Your task to perform on an android device: change notifications settings Image 0: 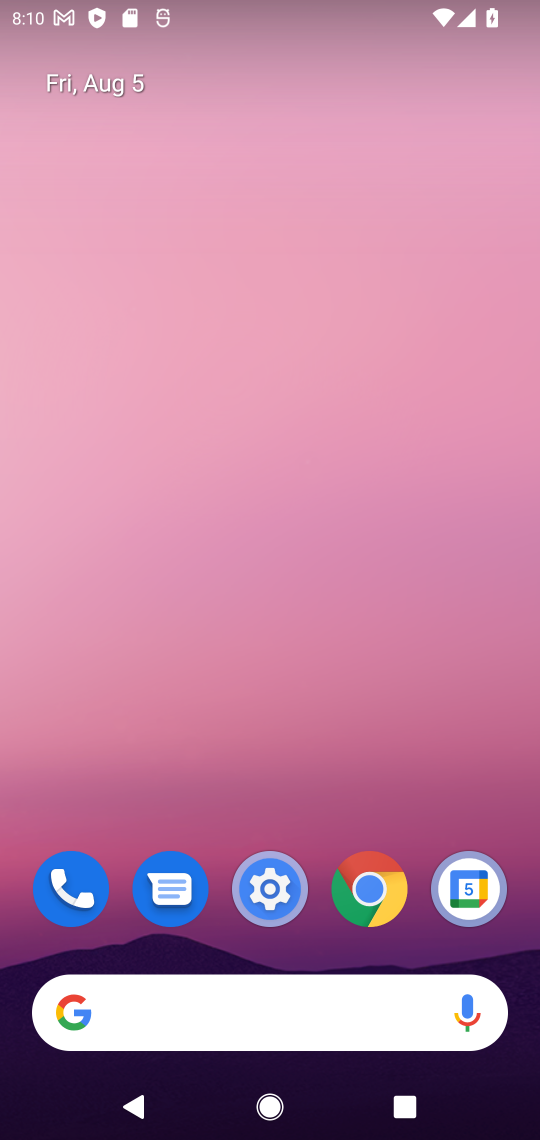
Step 0: drag from (239, 941) to (221, 280)
Your task to perform on an android device: change notifications settings Image 1: 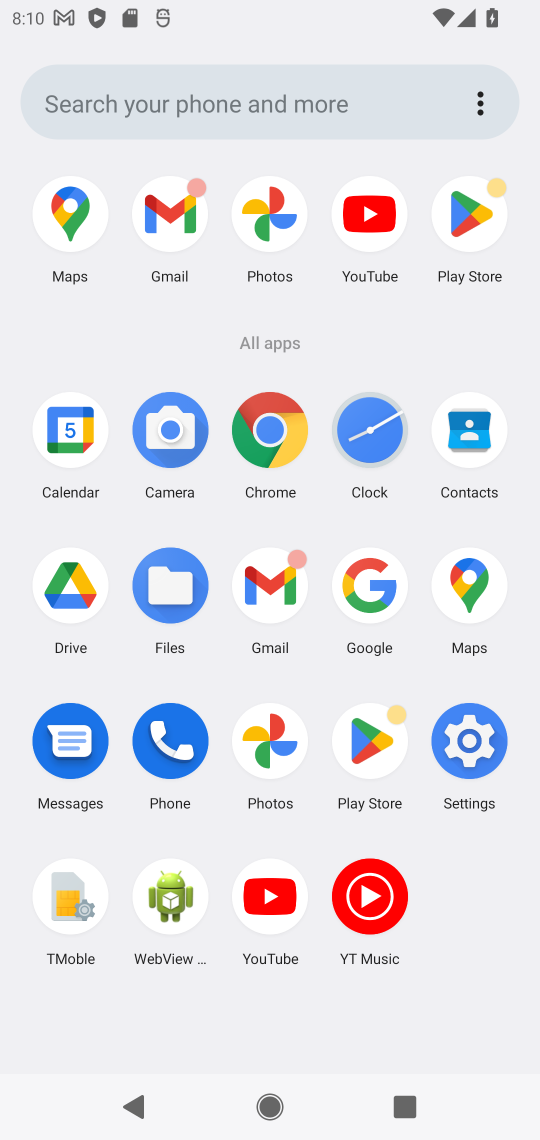
Step 1: click (469, 719)
Your task to perform on an android device: change notifications settings Image 2: 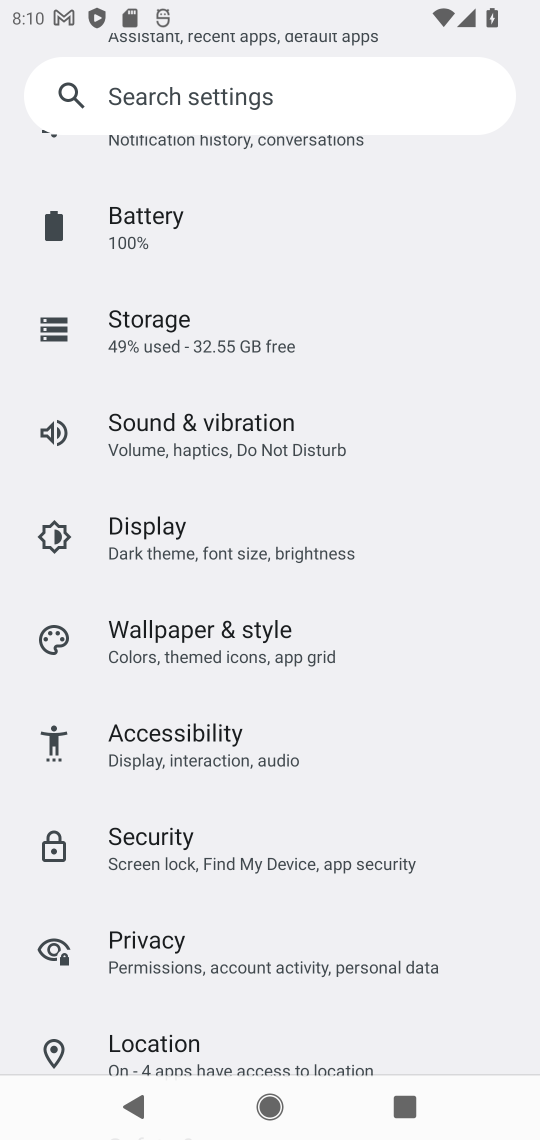
Step 2: drag from (266, 254) to (246, 913)
Your task to perform on an android device: change notifications settings Image 3: 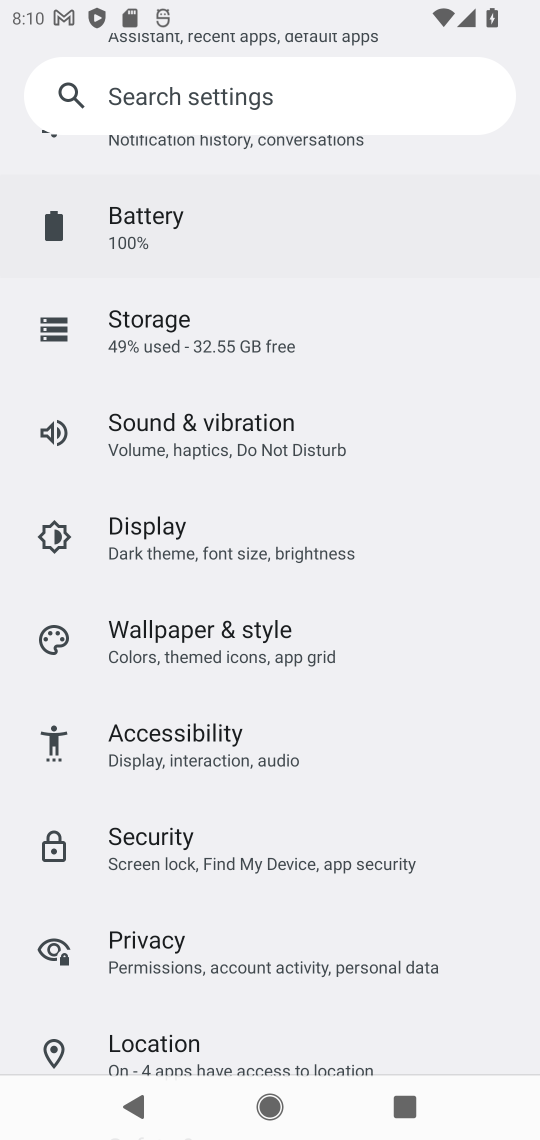
Step 3: drag from (202, 218) to (187, 823)
Your task to perform on an android device: change notifications settings Image 4: 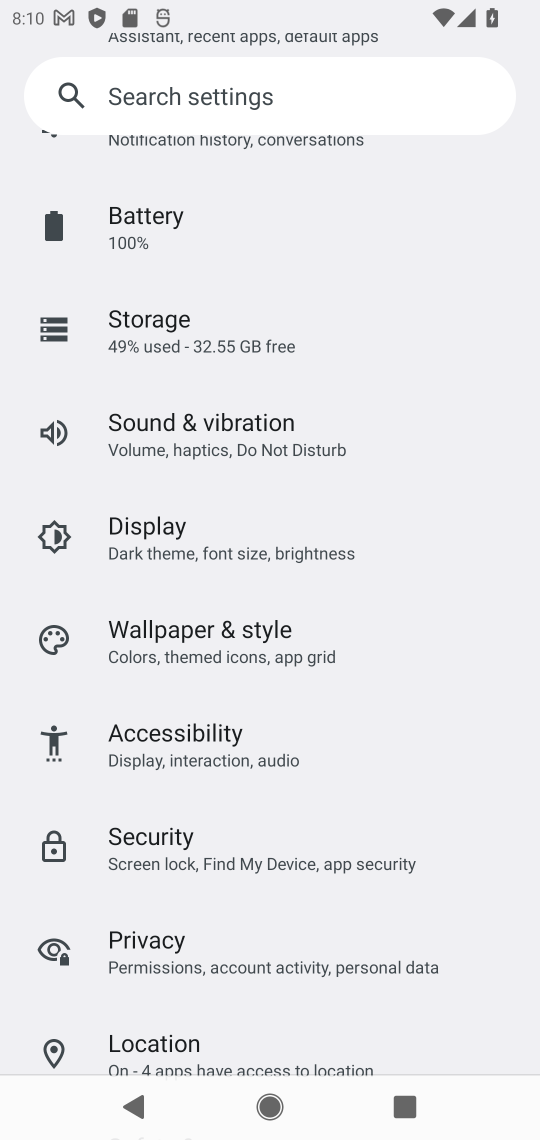
Step 4: drag from (358, 322) to (353, 855)
Your task to perform on an android device: change notifications settings Image 5: 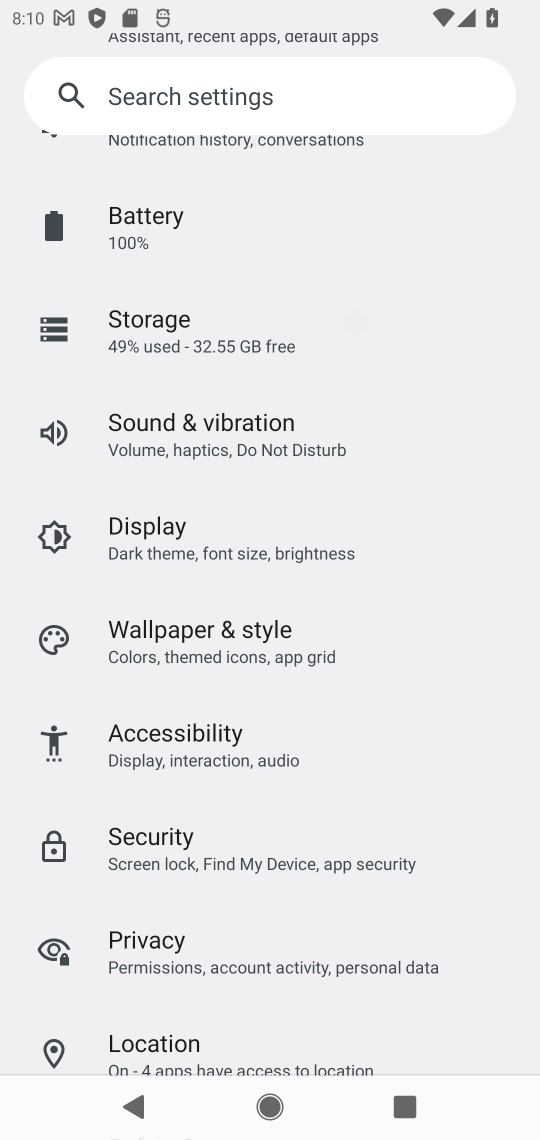
Step 5: drag from (265, 394) to (209, 798)
Your task to perform on an android device: change notifications settings Image 6: 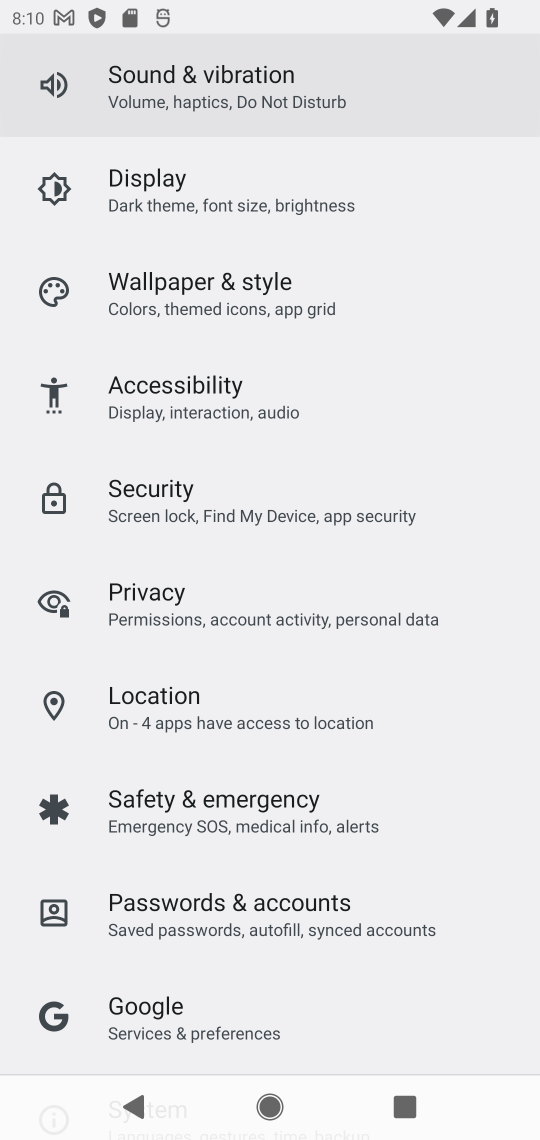
Step 6: drag from (157, 305) to (164, 773)
Your task to perform on an android device: change notifications settings Image 7: 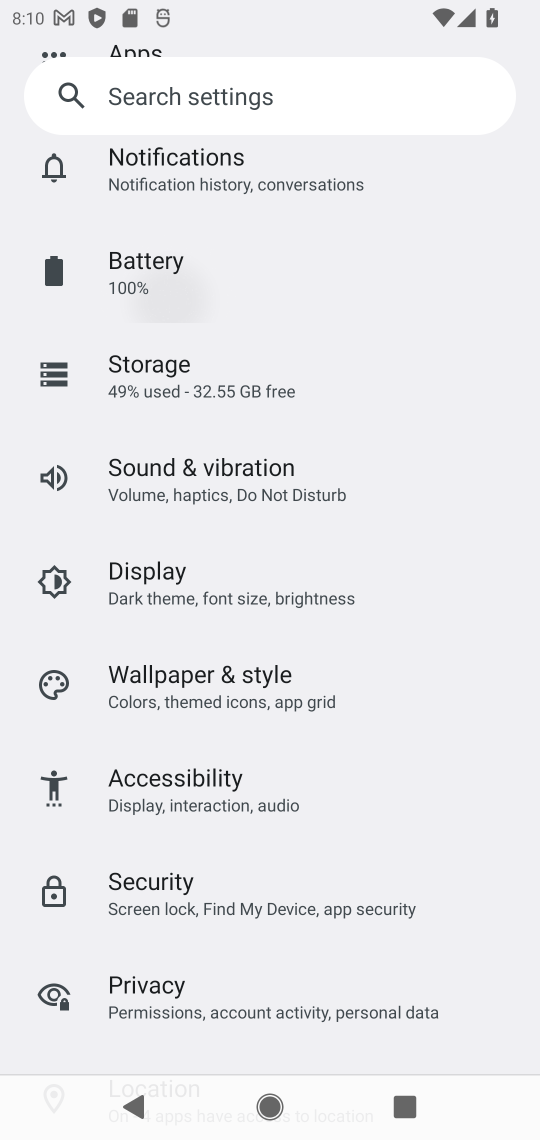
Step 7: drag from (125, 375) to (182, 835)
Your task to perform on an android device: change notifications settings Image 8: 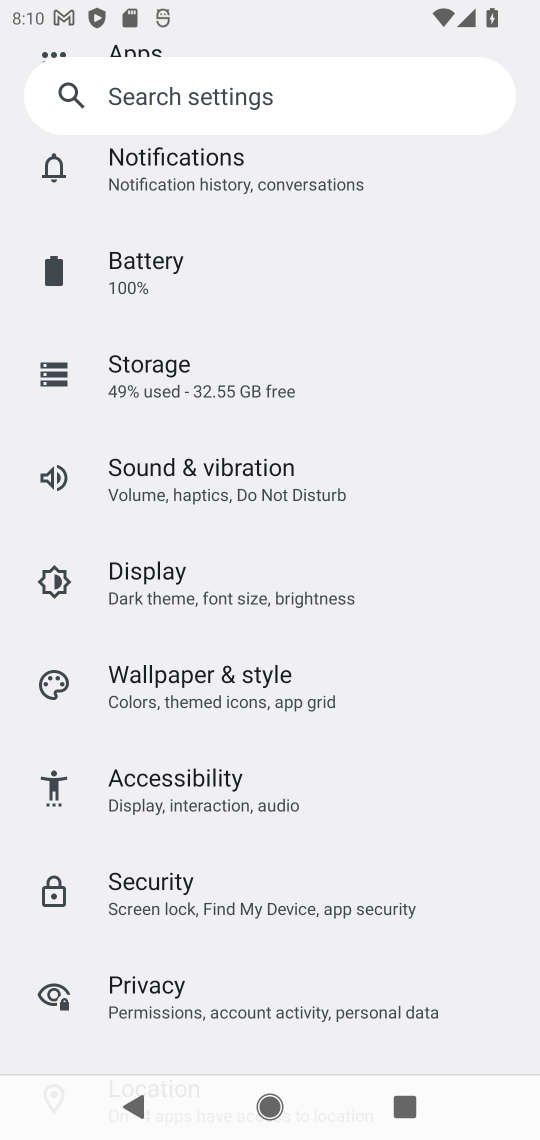
Step 8: click (214, 175)
Your task to perform on an android device: change notifications settings Image 9: 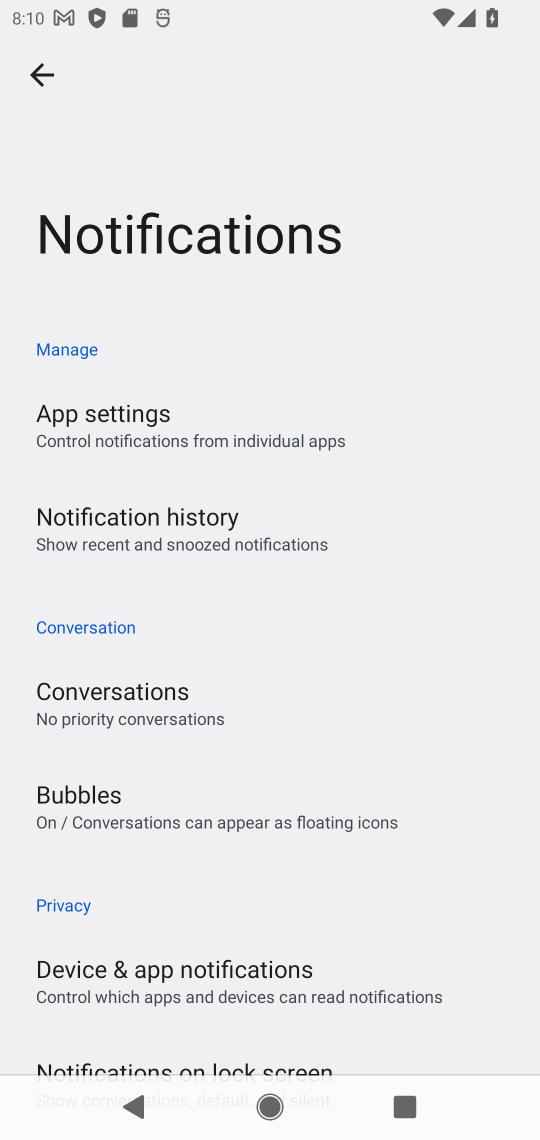
Step 9: drag from (160, 976) to (215, 335)
Your task to perform on an android device: change notifications settings Image 10: 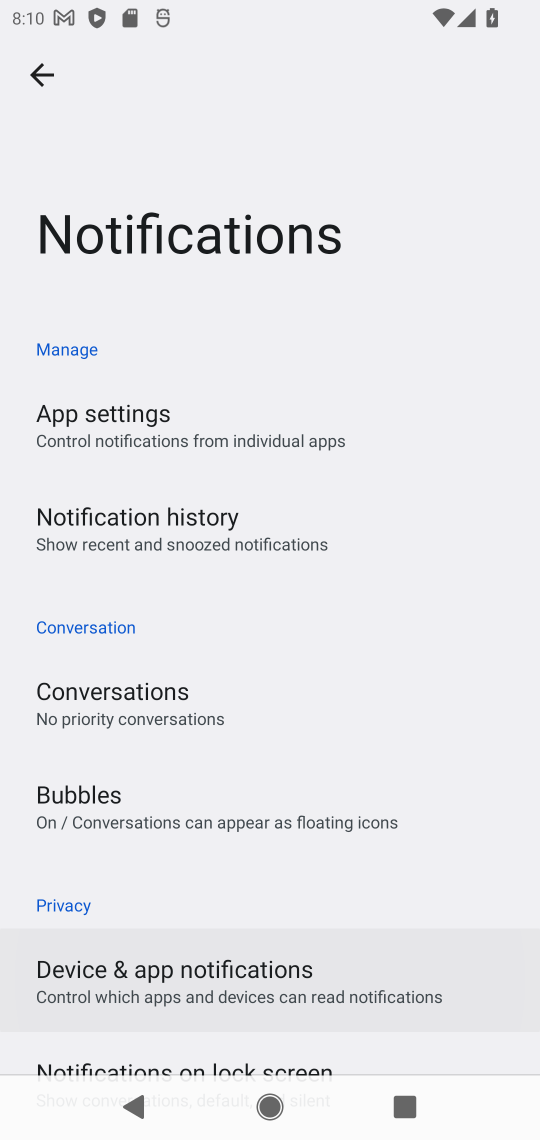
Step 10: drag from (191, 901) to (188, 428)
Your task to perform on an android device: change notifications settings Image 11: 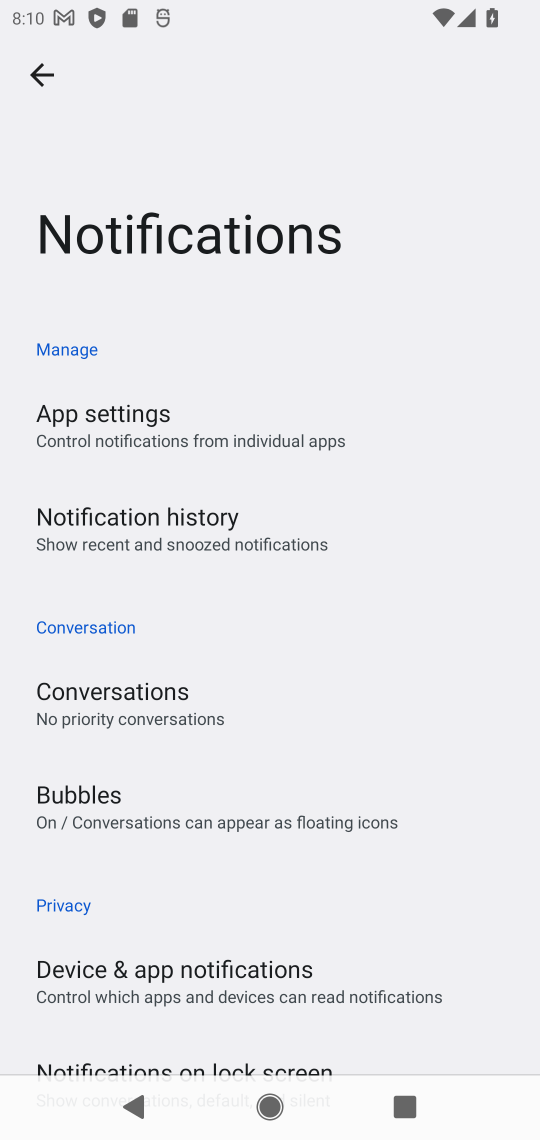
Step 11: drag from (190, 834) to (230, 525)
Your task to perform on an android device: change notifications settings Image 12: 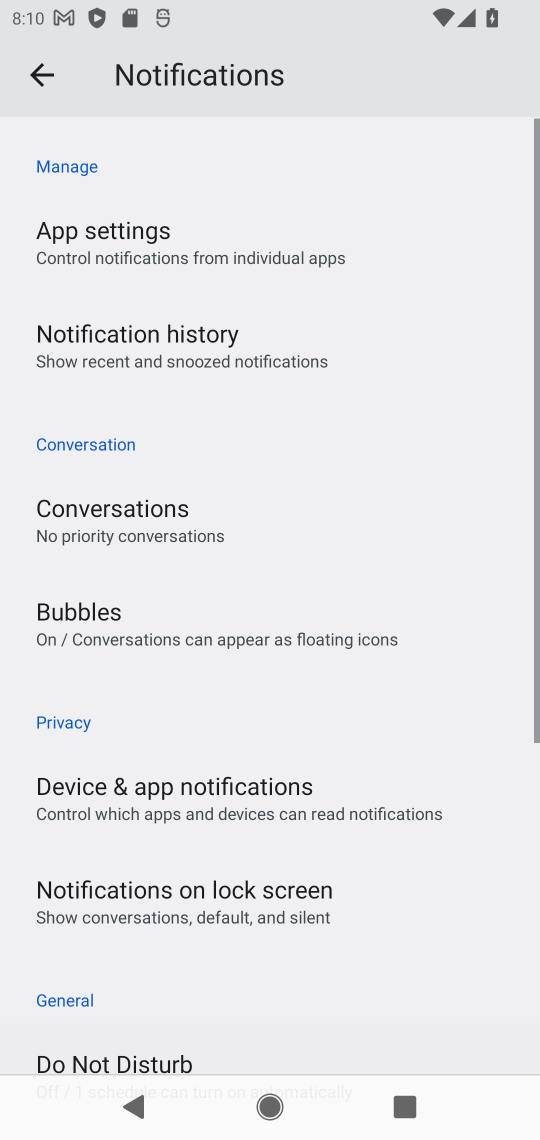
Step 12: drag from (213, 755) to (235, 444)
Your task to perform on an android device: change notifications settings Image 13: 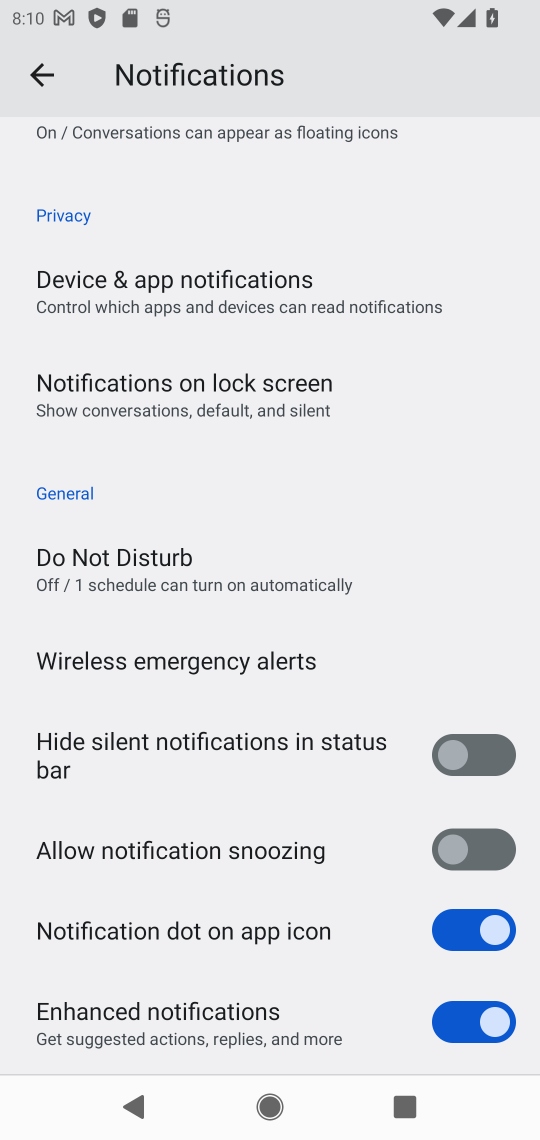
Step 13: drag from (103, 293) to (140, 682)
Your task to perform on an android device: change notifications settings Image 14: 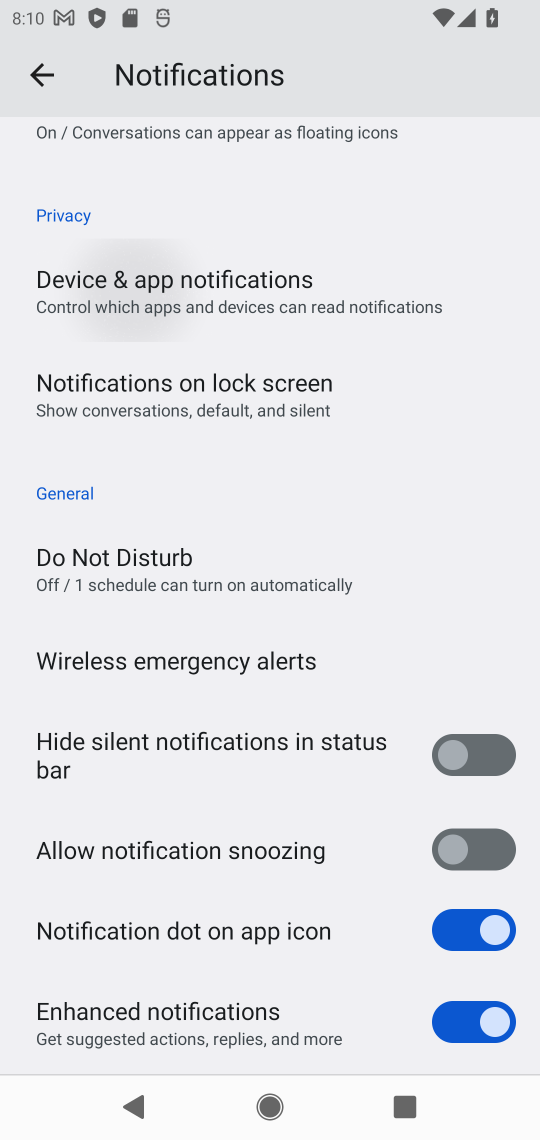
Step 14: drag from (192, 389) to (205, 738)
Your task to perform on an android device: change notifications settings Image 15: 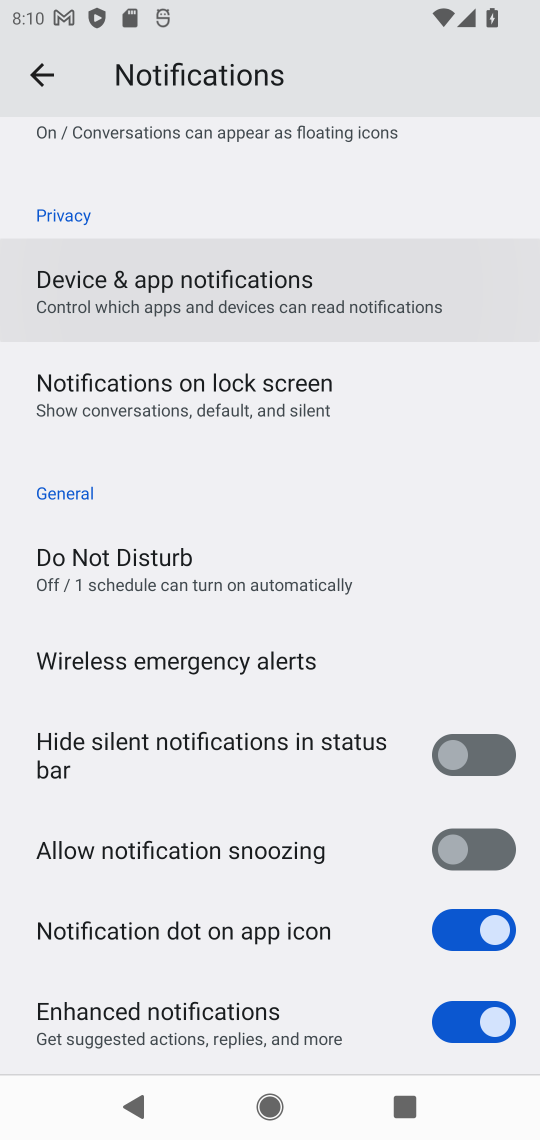
Step 15: drag from (202, 433) to (208, 763)
Your task to perform on an android device: change notifications settings Image 16: 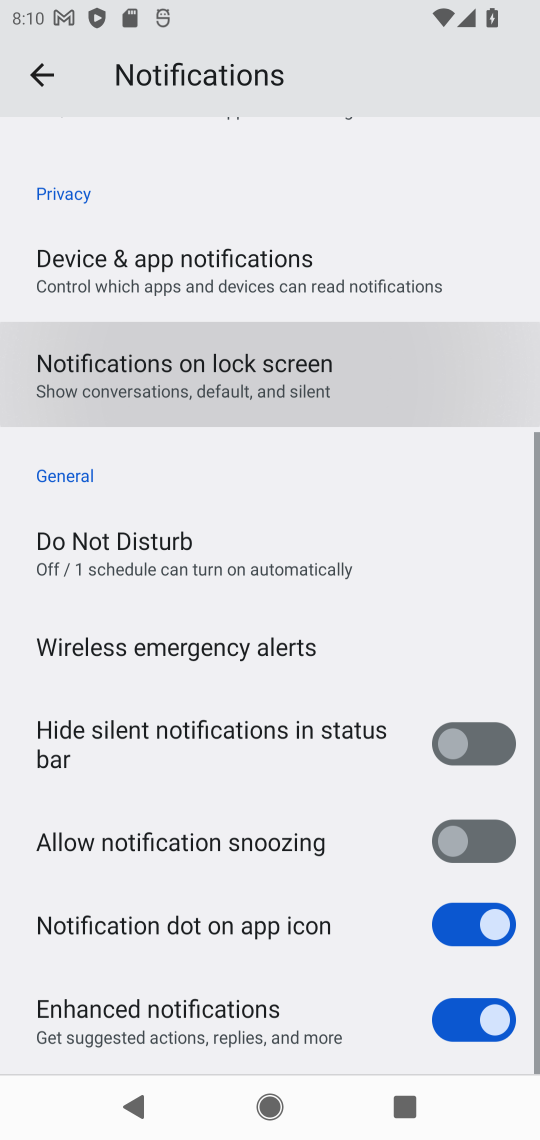
Step 16: drag from (153, 440) to (178, 809)
Your task to perform on an android device: change notifications settings Image 17: 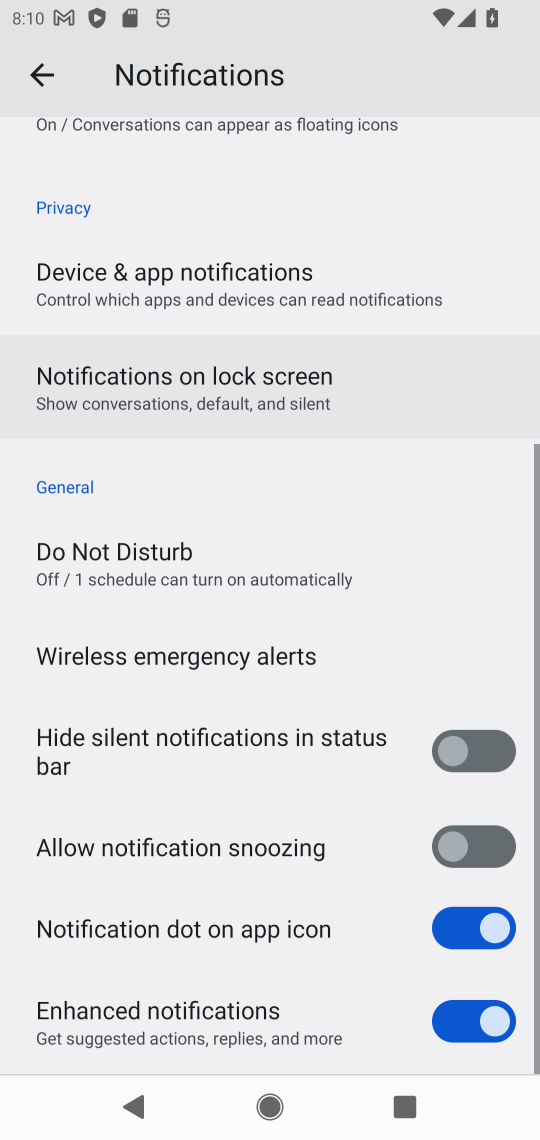
Step 17: drag from (261, 482) to (265, 896)
Your task to perform on an android device: change notifications settings Image 18: 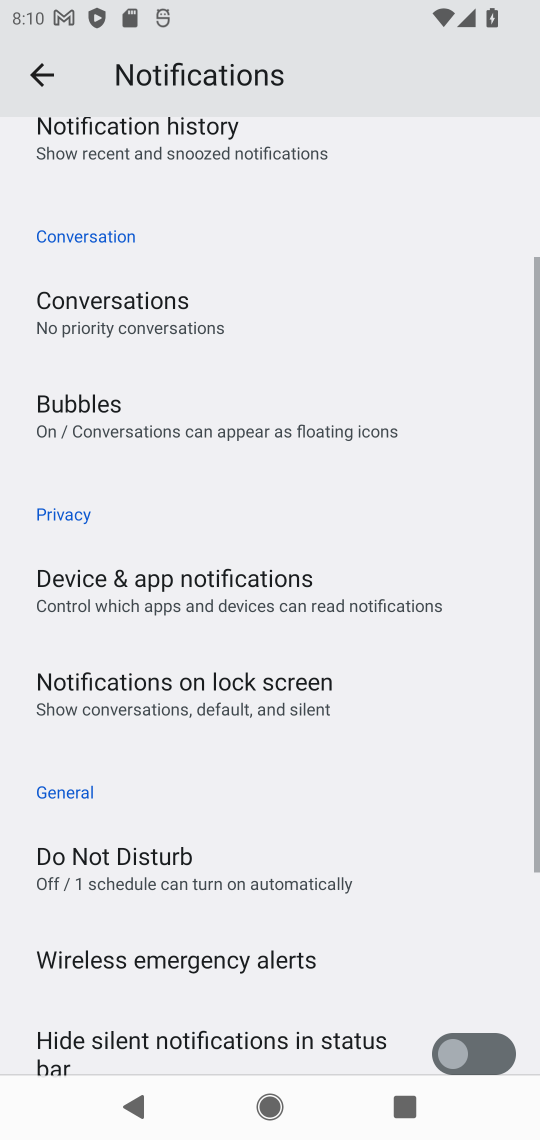
Step 18: drag from (275, 647) to (279, 977)
Your task to perform on an android device: change notifications settings Image 19: 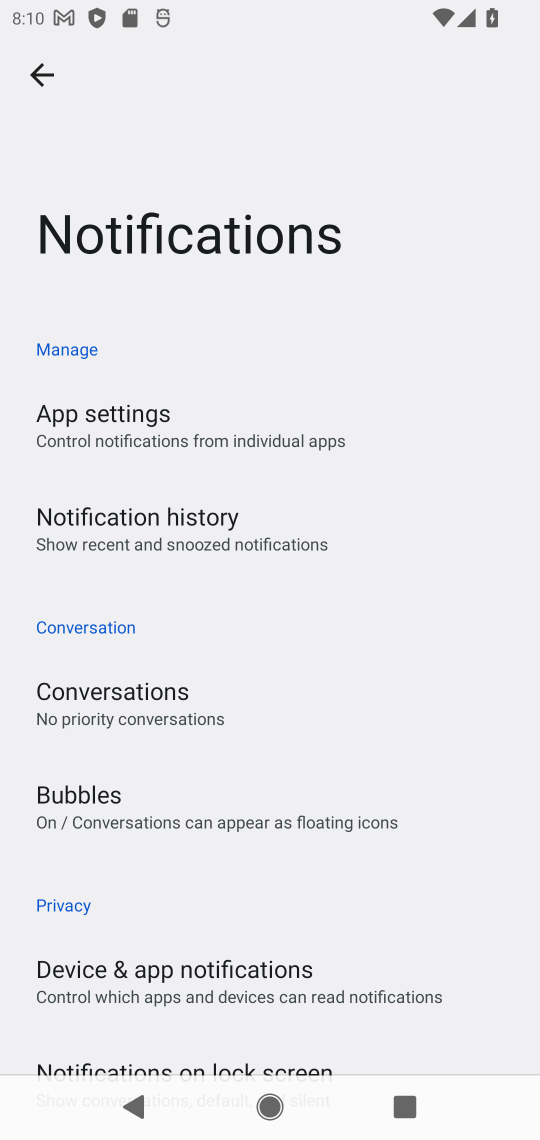
Step 19: click (24, 74)
Your task to perform on an android device: change notifications settings Image 20: 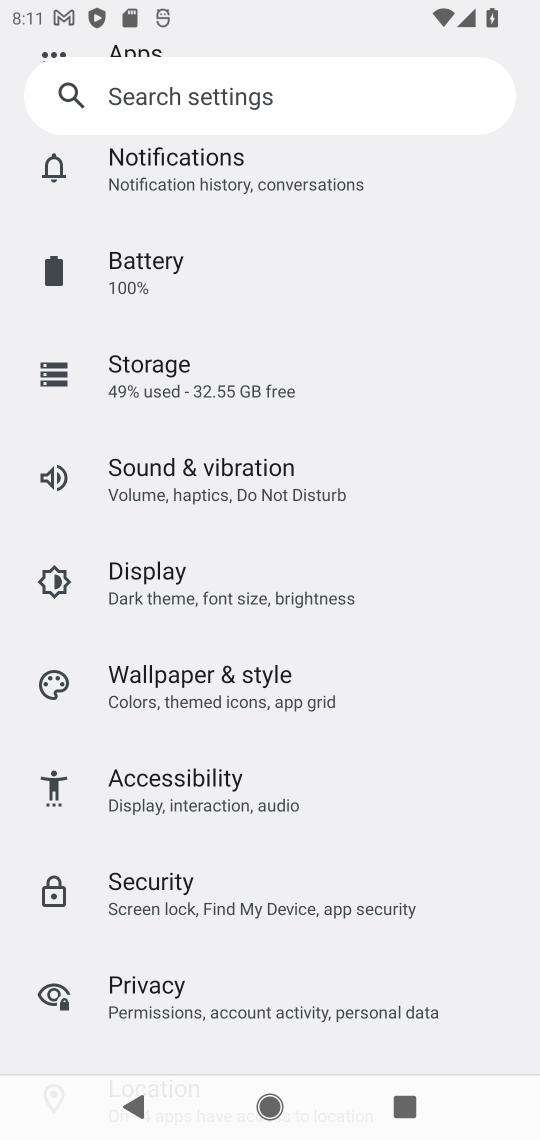
Step 20: drag from (245, 291) to (252, 1014)
Your task to perform on an android device: change notifications settings Image 21: 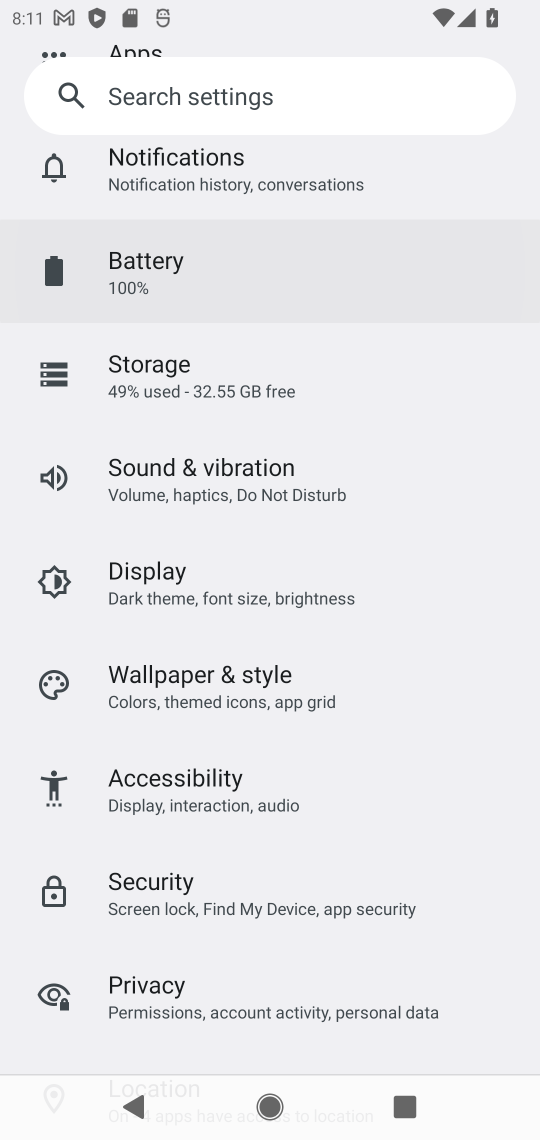
Step 21: click (188, 159)
Your task to perform on an android device: change notifications settings Image 22: 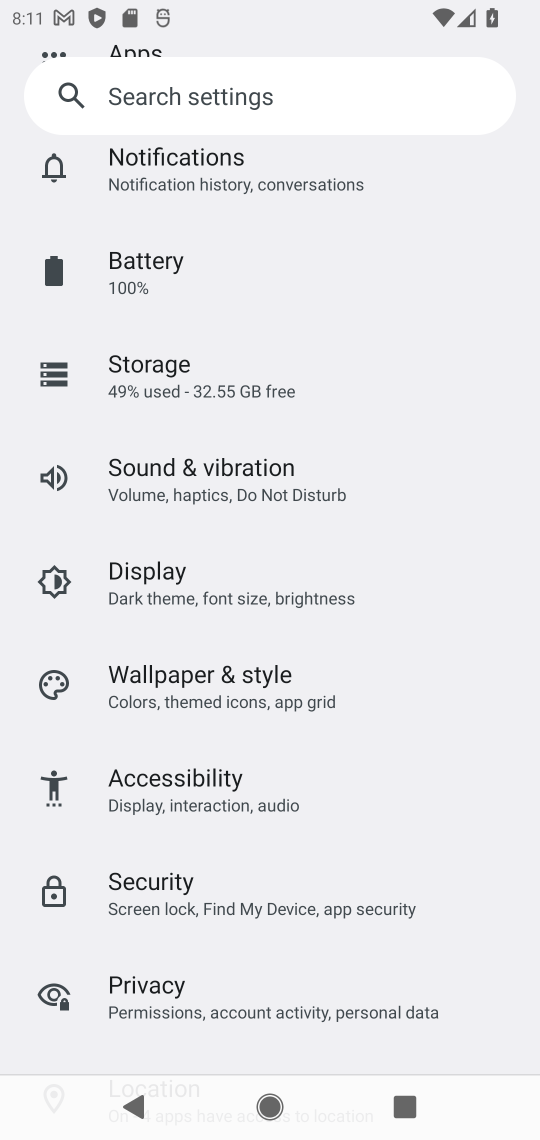
Step 22: click (196, 186)
Your task to perform on an android device: change notifications settings Image 23: 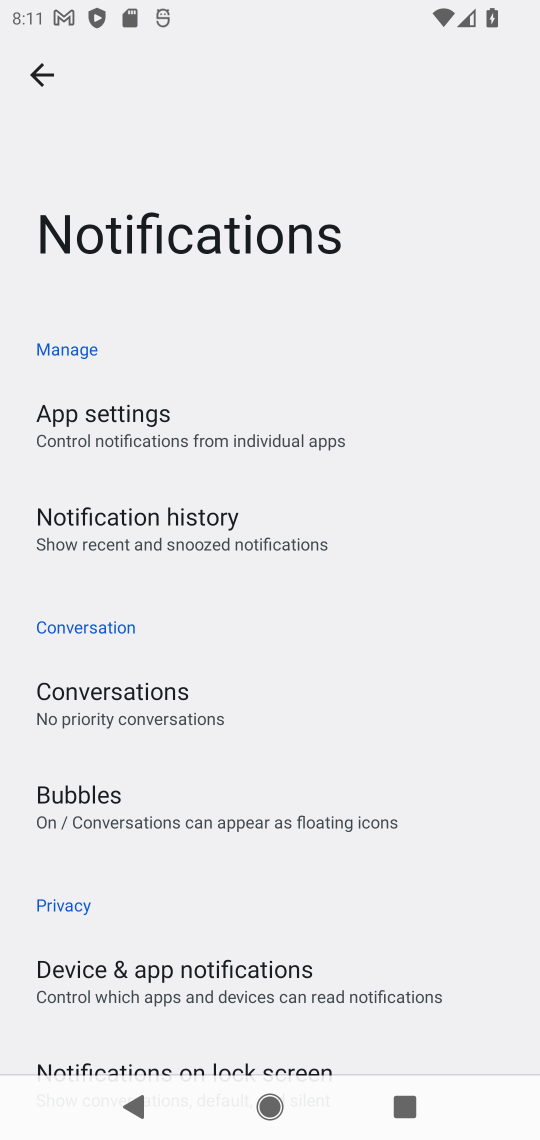
Step 23: click (156, 431)
Your task to perform on an android device: change notifications settings Image 24: 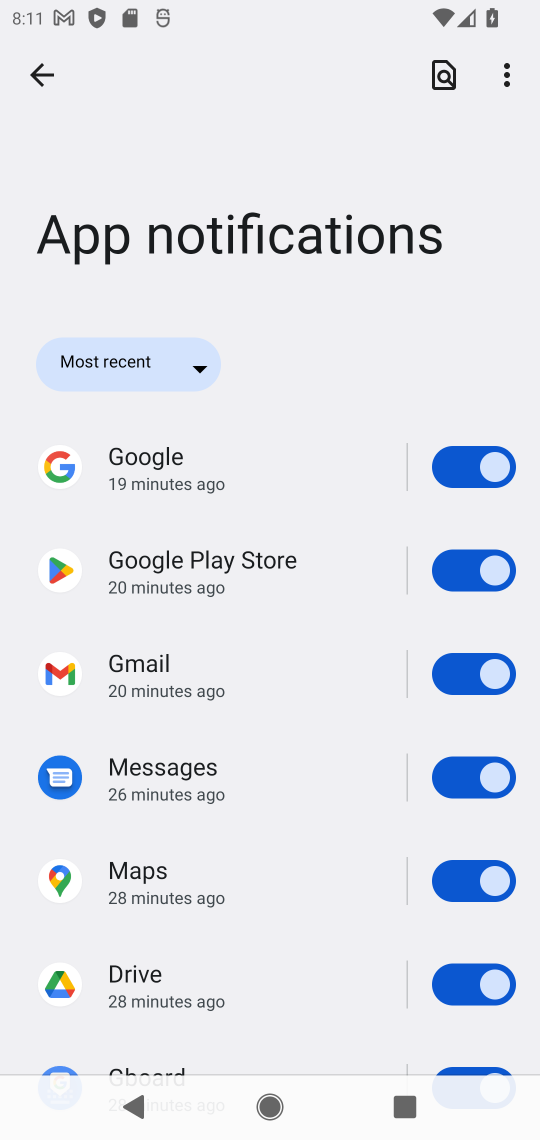
Step 24: click (464, 450)
Your task to perform on an android device: change notifications settings Image 25: 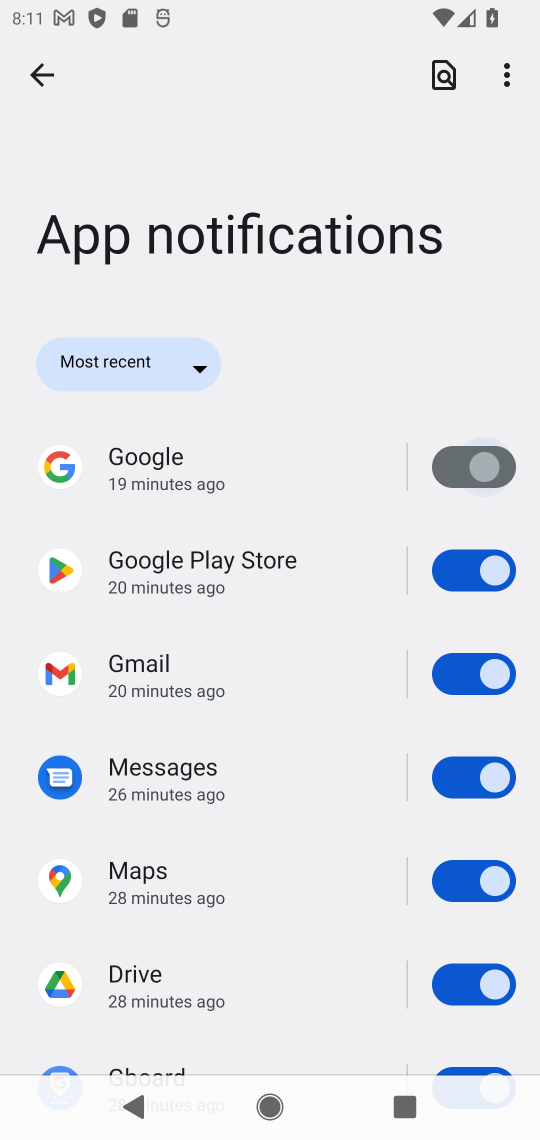
Step 25: click (466, 596)
Your task to perform on an android device: change notifications settings Image 26: 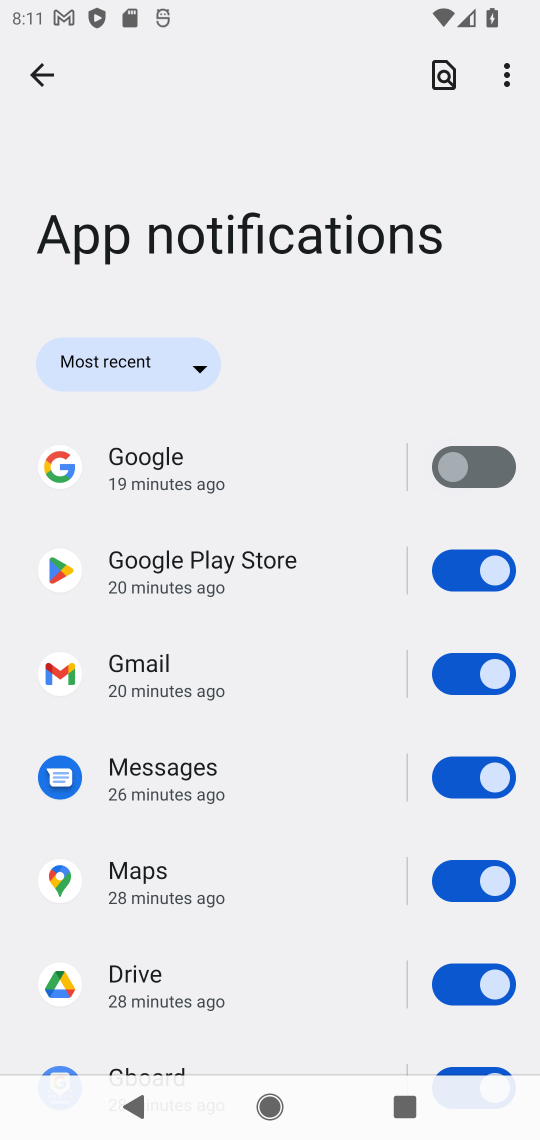
Step 26: click (466, 651)
Your task to perform on an android device: change notifications settings Image 27: 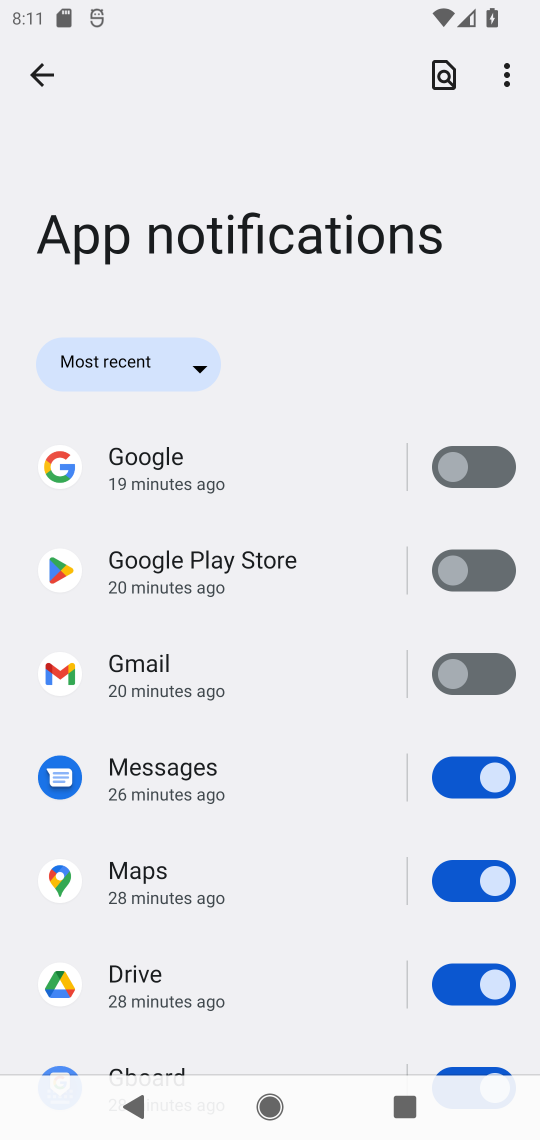
Step 27: click (435, 758)
Your task to perform on an android device: change notifications settings Image 28: 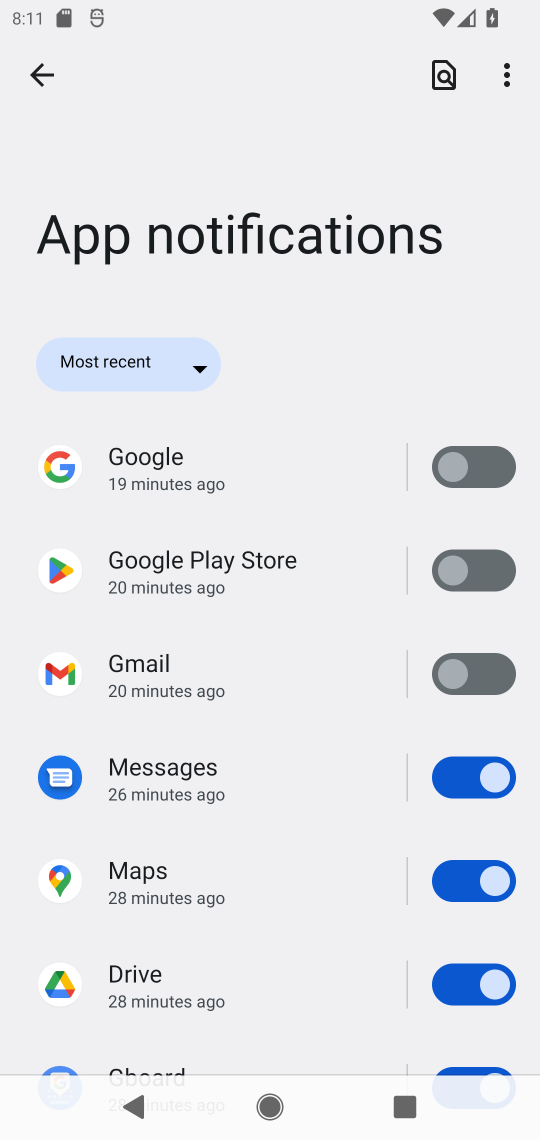
Step 28: click (473, 905)
Your task to perform on an android device: change notifications settings Image 29: 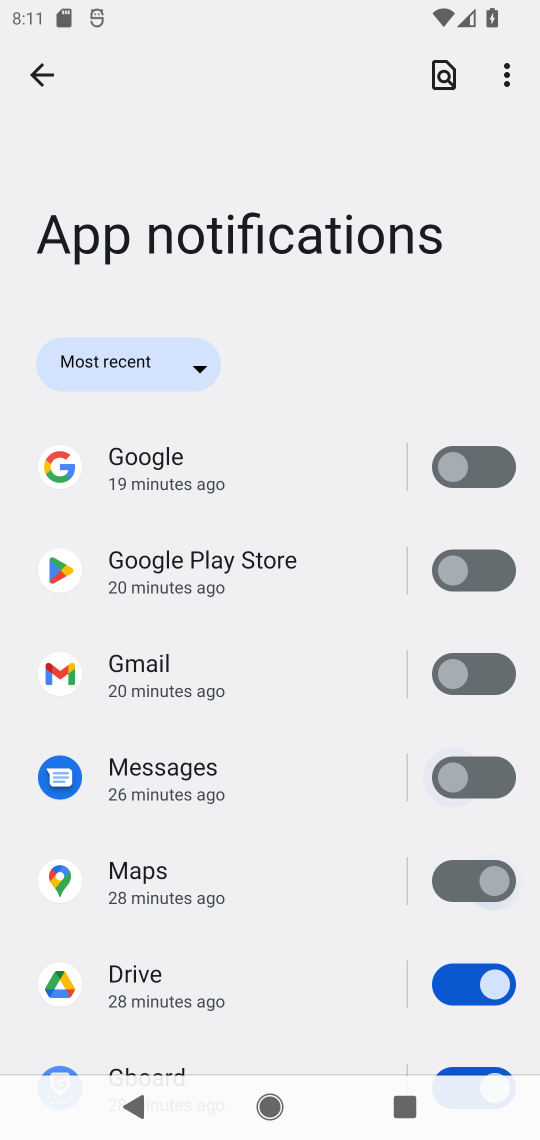
Step 29: click (470, 970)
Your task to perform on an android device: change notifications settings Image 30: 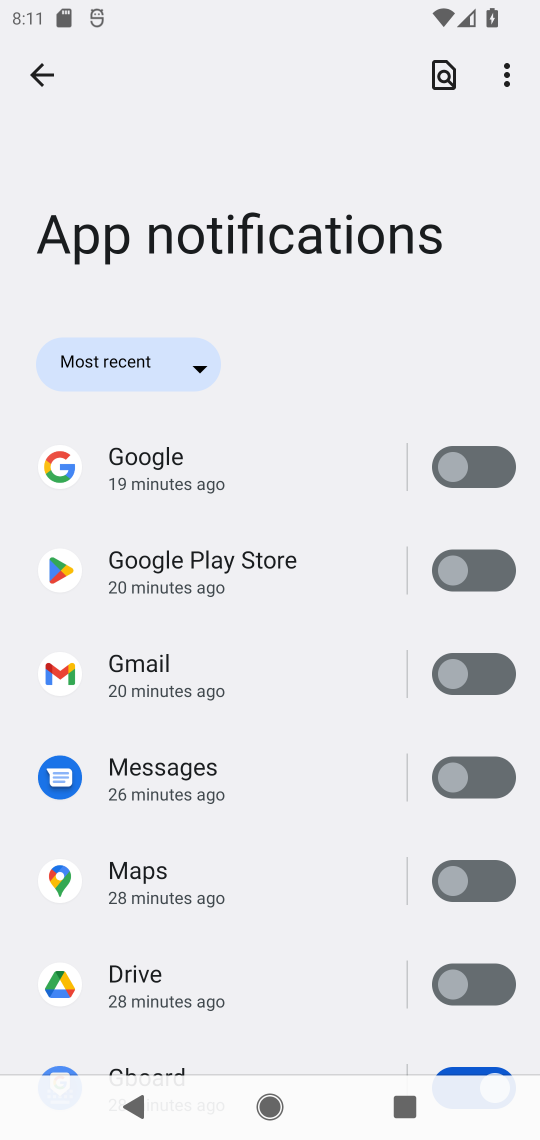
Step 30: drag from (425, 927) to (370, 349)
Your task to perform on an android device: change notifications settings Image 31: 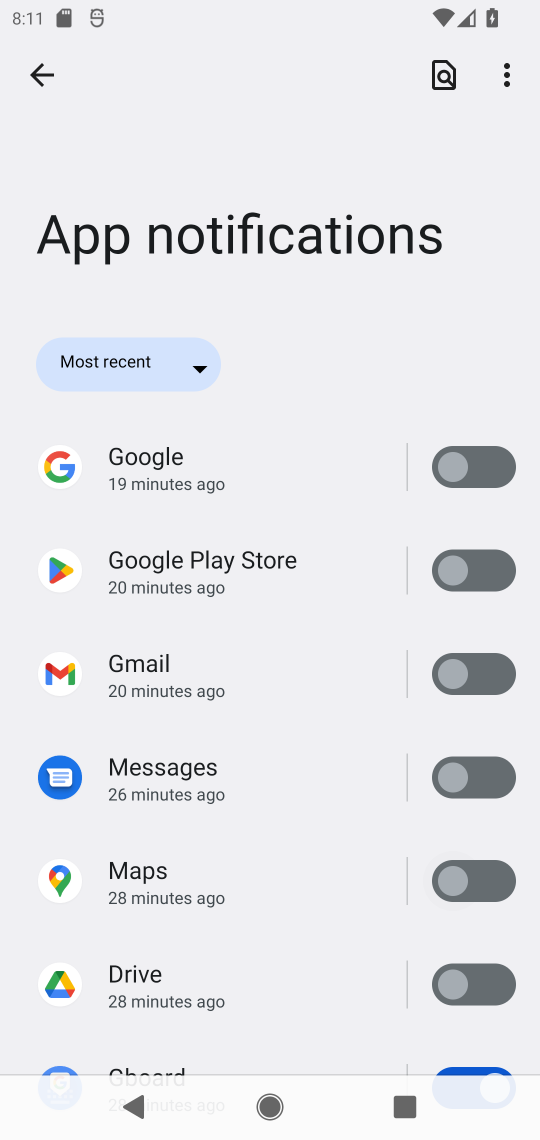
Step 31: drag from (376, 956) to (357, 373)
Your task to perform on an android device: change notifications settings Image 32: 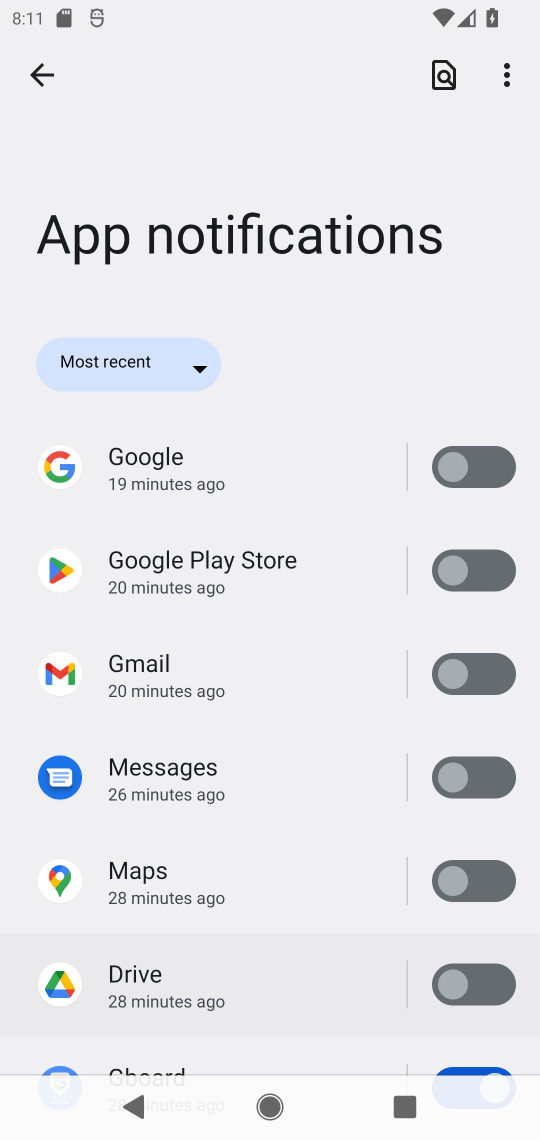
Step 32: drag from (357, 986) to (304, 479)
Your task to perform on an android device: change notifications settings Image 33: 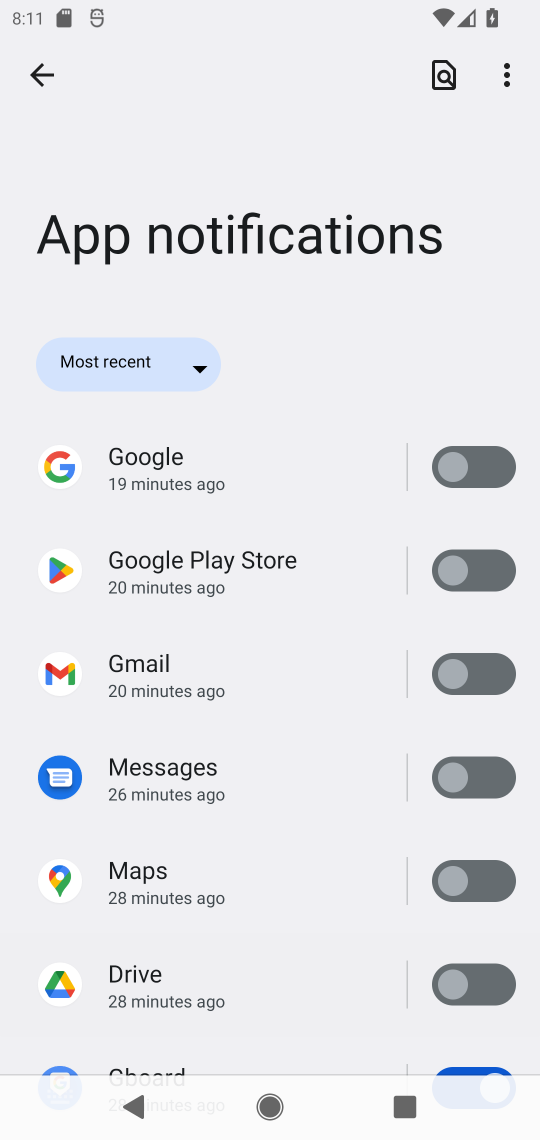
Step 33: drag from (280, 987) to (287, 442)
Your task to perform on an android device: change notifications settings Image 34: 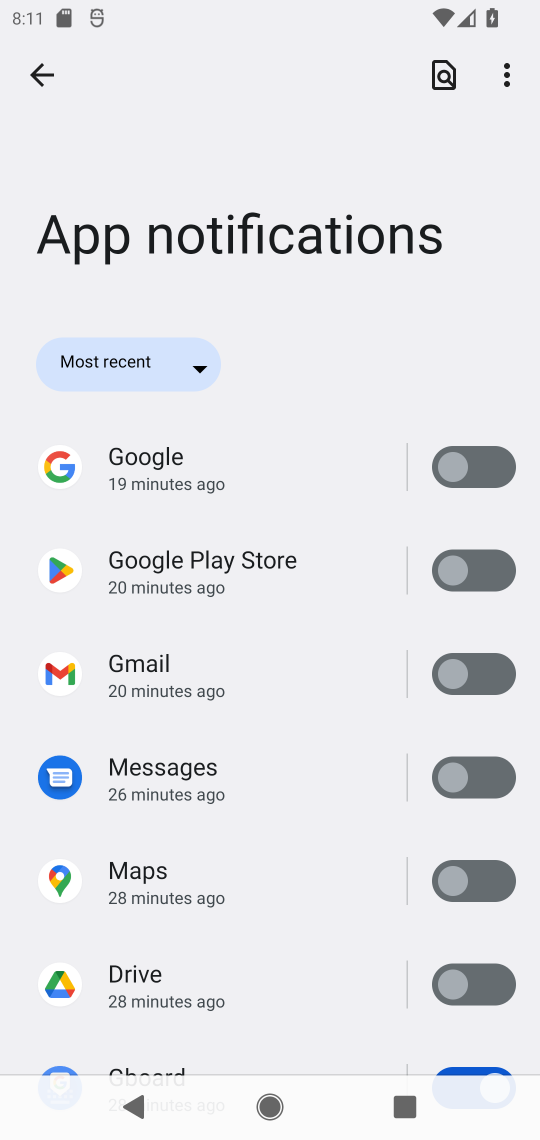
Step 34: drag from (147, 984) to (205, 446)
Your task to perform on an android device: change notifications settings Image 35: 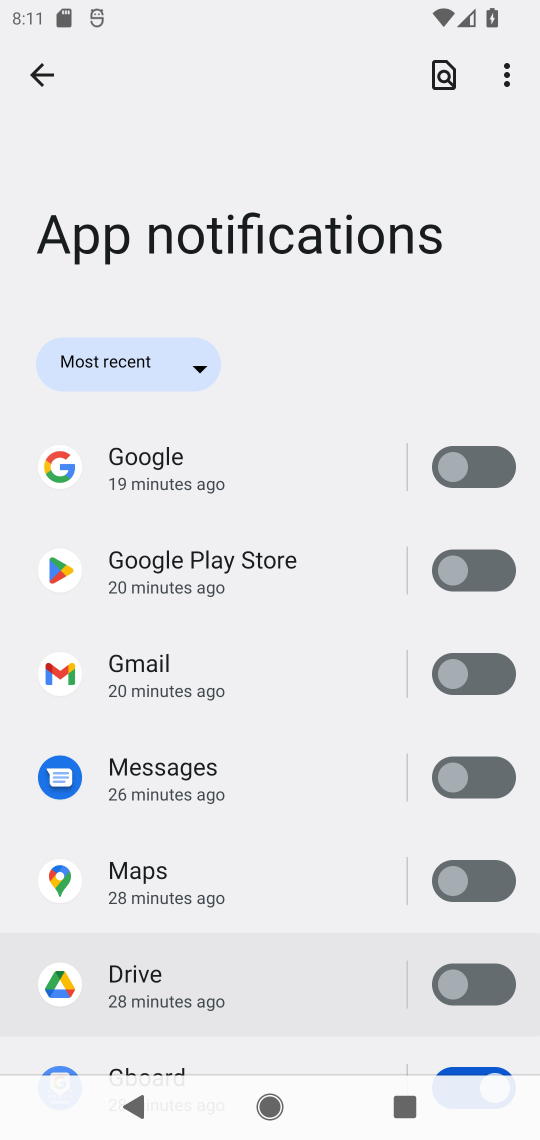
Step 35: drag from (162, 950) to (175, 589)
Your task to perform on an android device: change notifications settings Image 36: 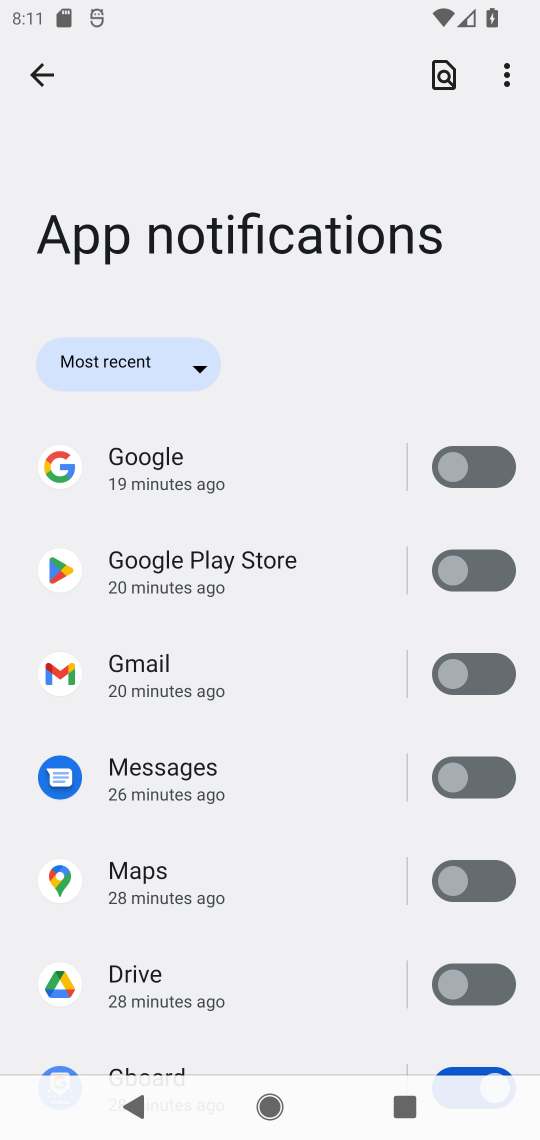
Step 36: drag from (239, 944) to (267, 465)
Your task to perform on an android device: change notifications settings Image 37: 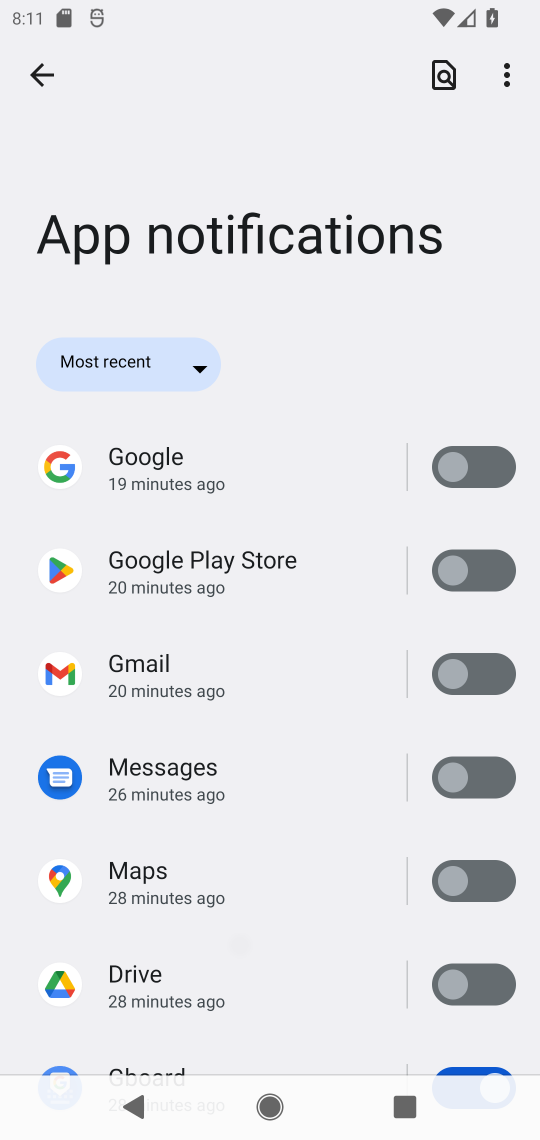
Step 37: drag from (204, 892) to (271, 387)
Your task to perform on an android device: change notifications settings Image 38: 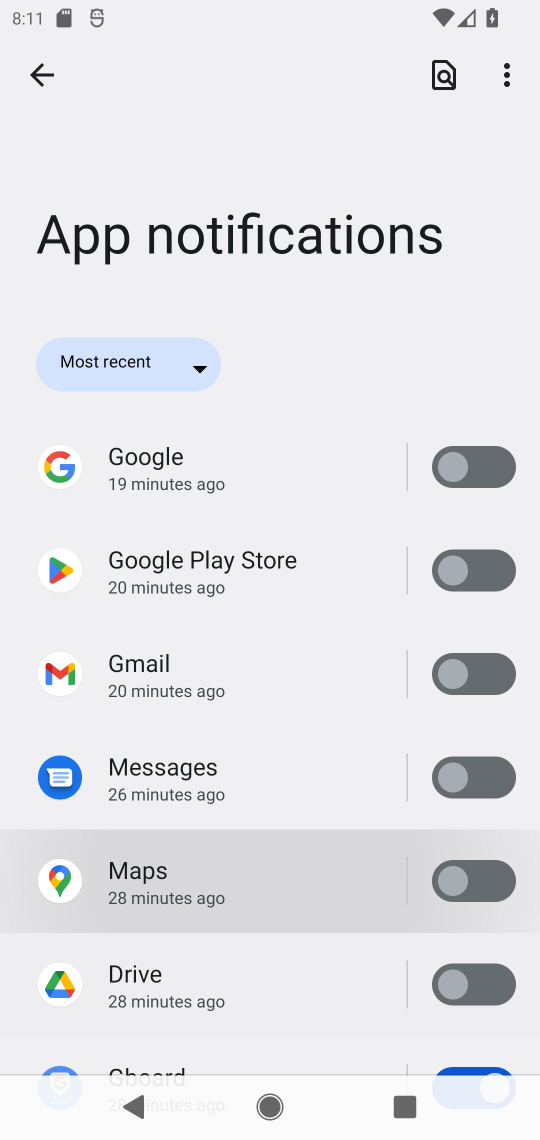
Step 38: drag from (234, 931) to (293, 449)
Your task to perform on an android device: change notifications settings Image 39: 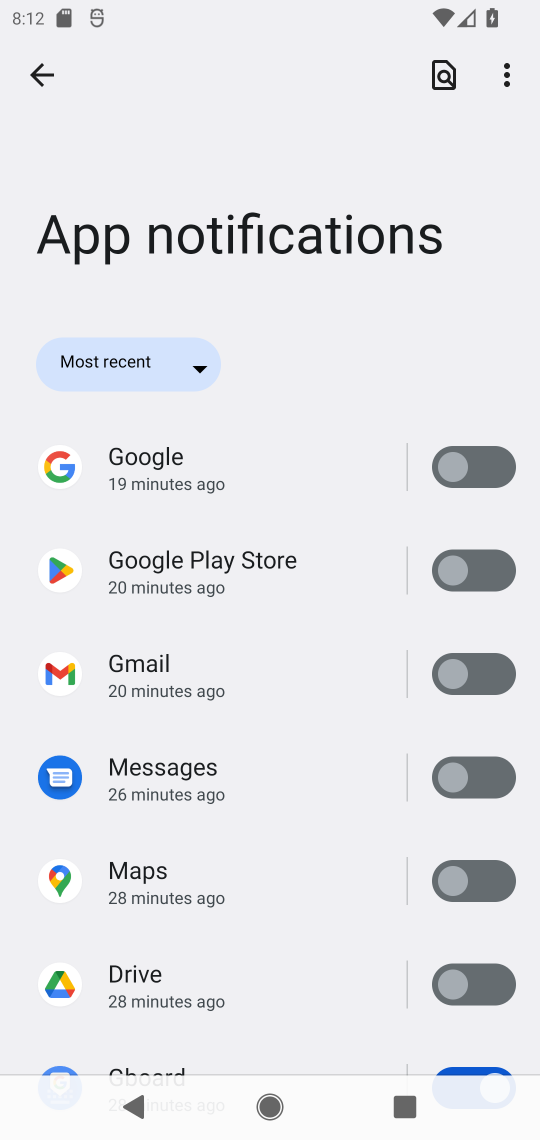
Step 39: click (458, 1062)
Your task to perform on an android device: change notifications settings Image 40: 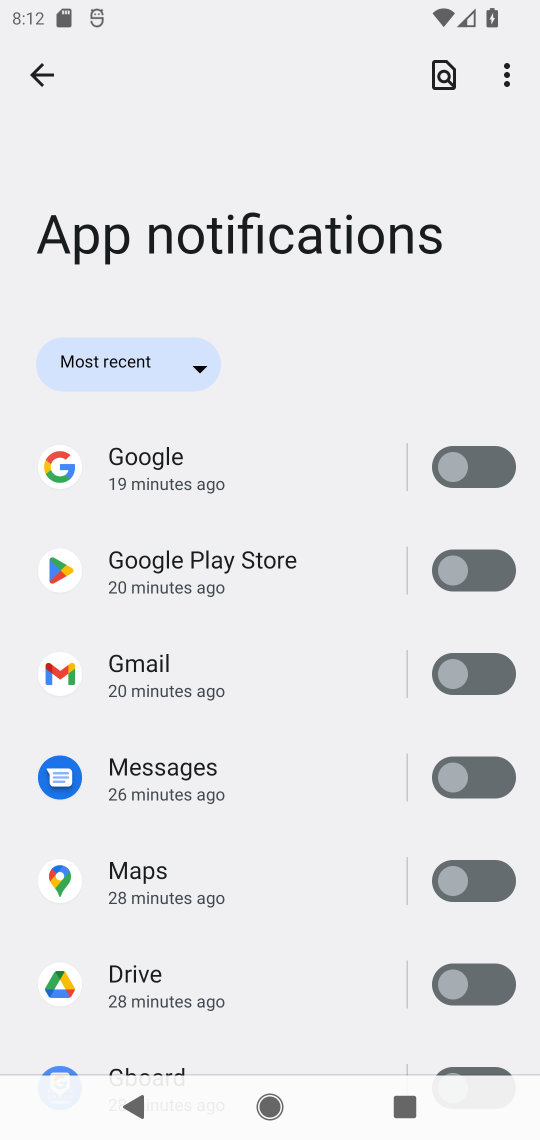
Step 40: task complete